Your task to perform on an android device: toggle location history Image 0: 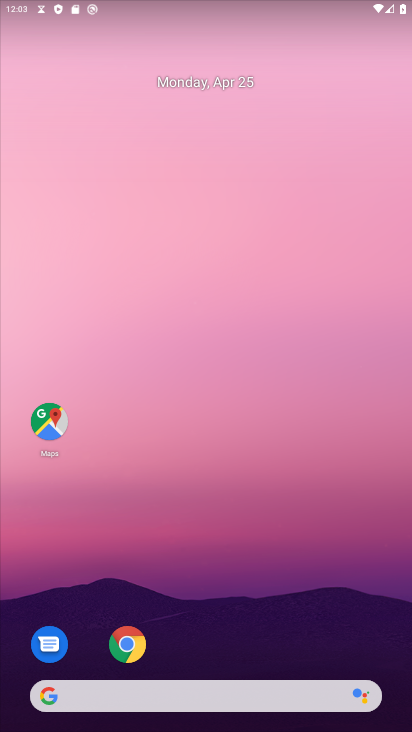
Step 0: click (44, 422)
Your task to perform on an android device: toggle location history Image 1: 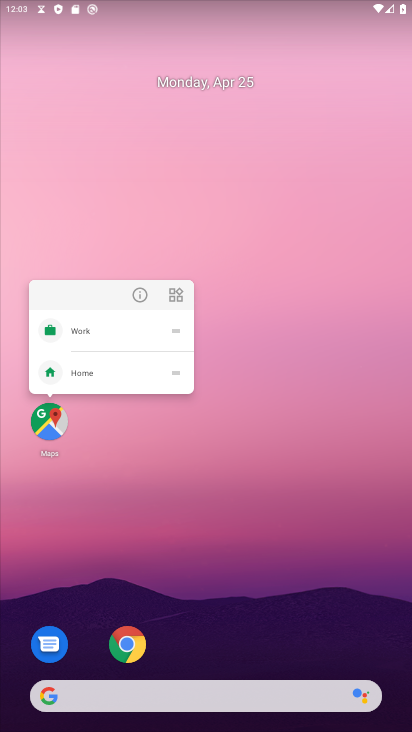
Step 1: click (47, 419)
Your task to perform on an android device: toggle location history Image 2: 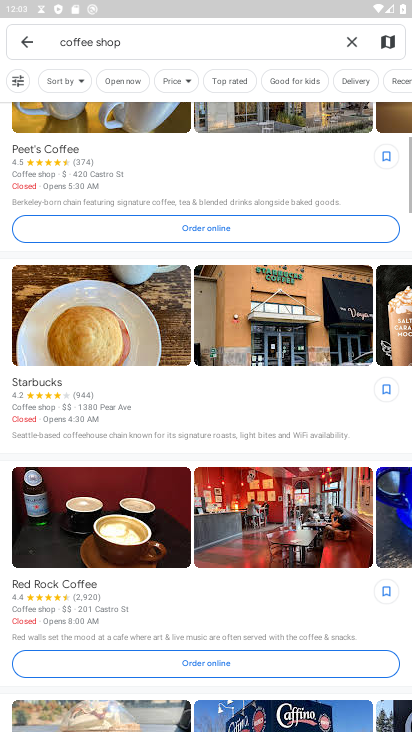
Step 2: click (353, 39)
Your task to perform on an android device: toggle location history Image 3: 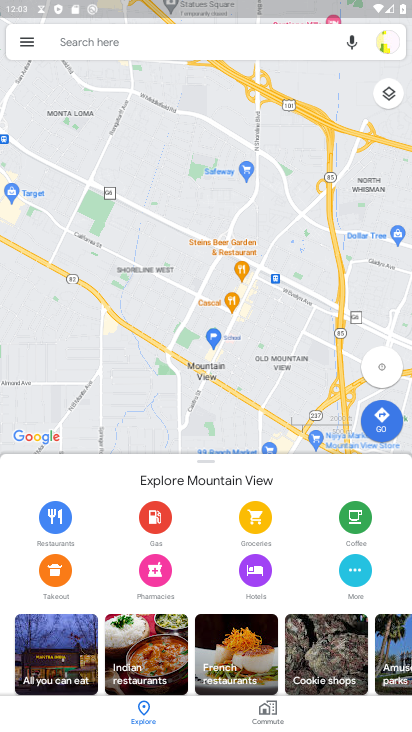
Step 3: click (25, 40)
Your task to perform on an android device: toggle location history Image 4: 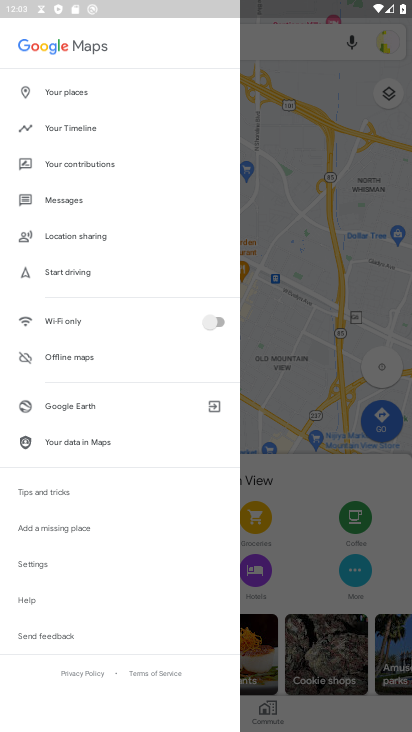
Step 4: click (80, 131)
Your task to perform on an android device: toggle location history Image 5: 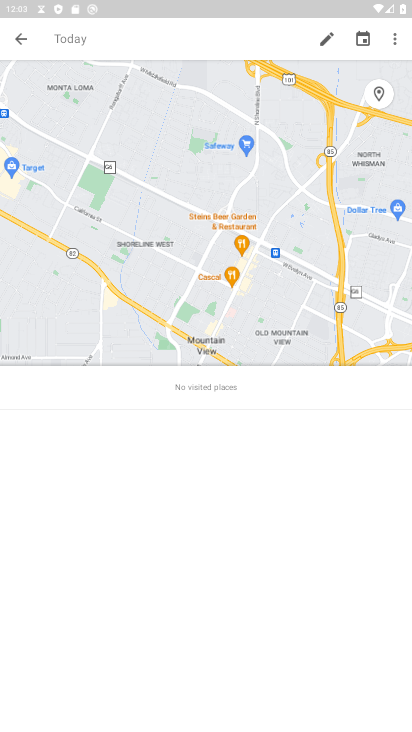
Step 5: click (397, 43)
Your task to perform on an android device: toggle location history Image 6: 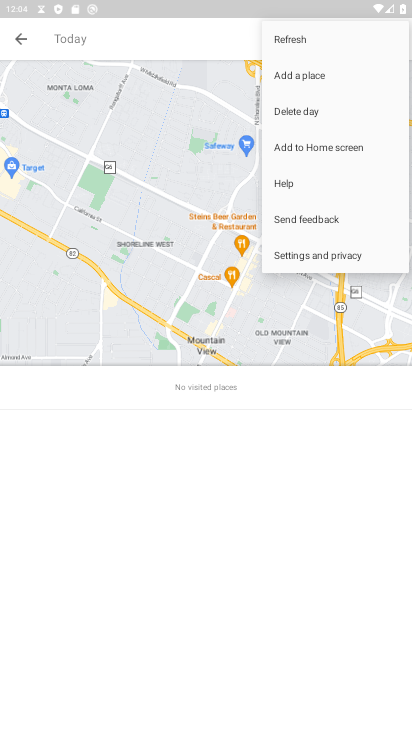
Step 6: click (290, 262)
Your task to perform on an android device: toggle location history Image 7: 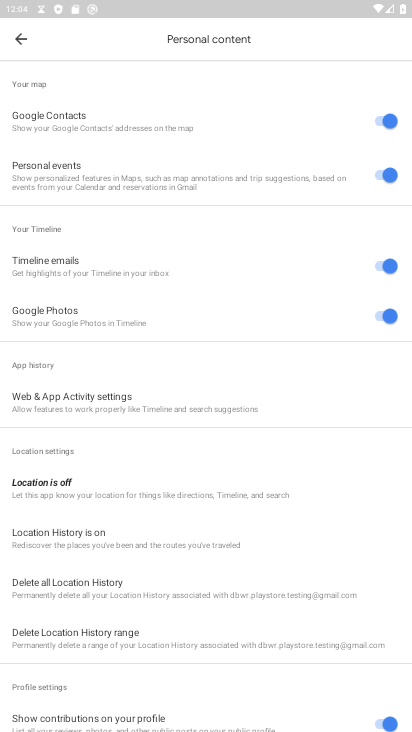
Step 7: click (66, 546)
Your task to perform on an android device: toggle location history Image 8: 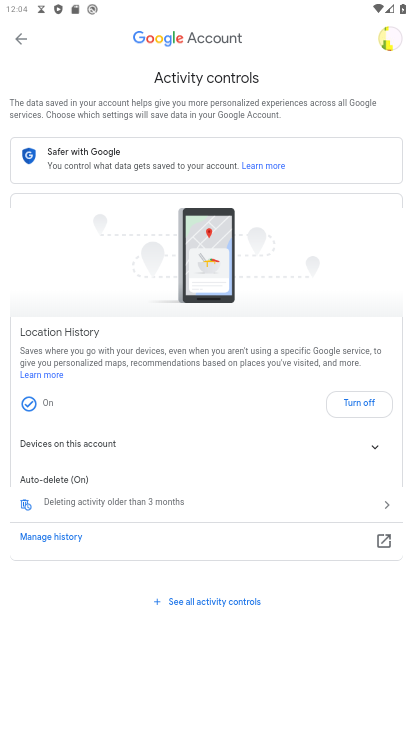
Step 8: click (372, 407)
Your task to perform on an android device: toggle location history Image 9: 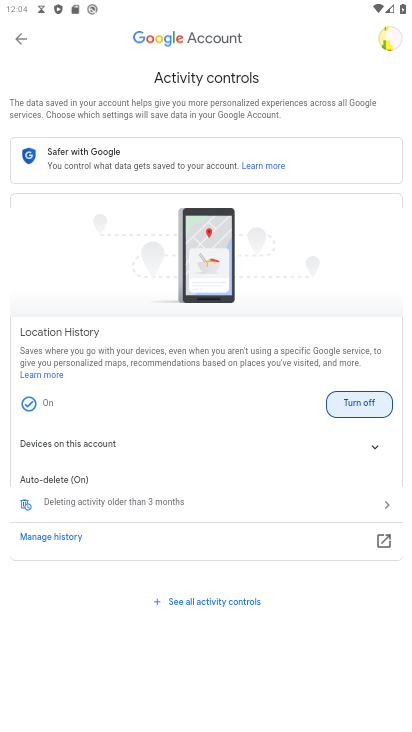
Step 9: click (363, 404)
Your task to perform on an android device: toggle location history Image 10: 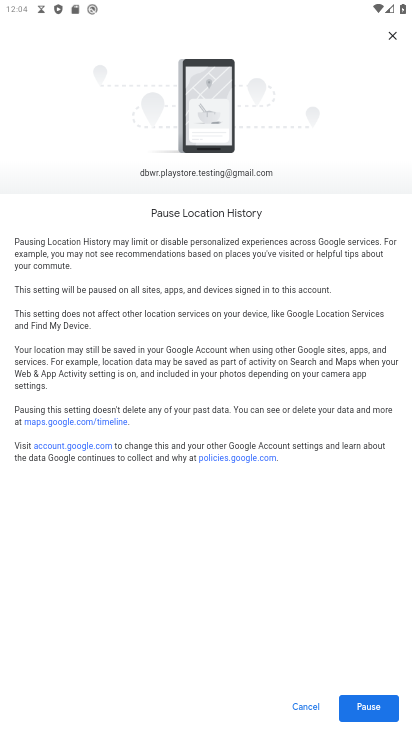
Step 10: click (384, 713)
Your task to perform on an android device: toggle location history Image 11: 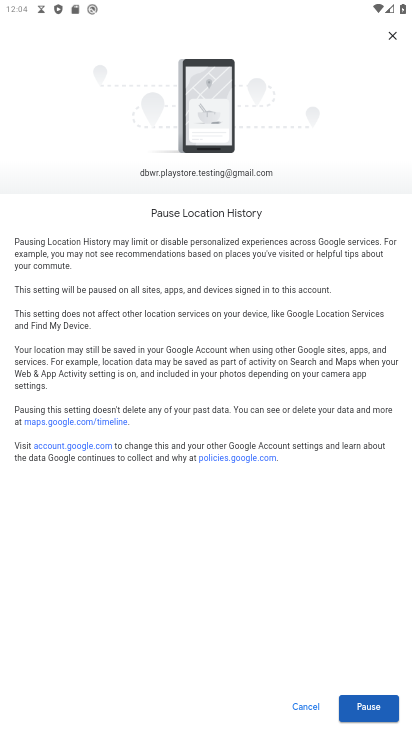
Step 11: click (364, 709)
Your task to perform on an android device: toggle location history Image 12: 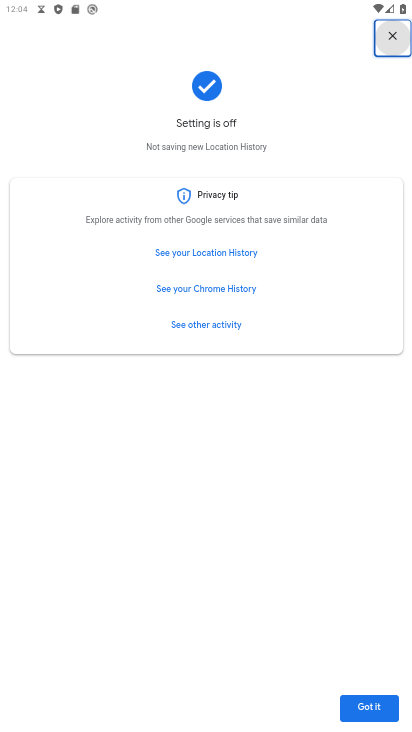
Step 12: click (364, 709)
Your task to perform on an android device: toggle location history Image 13: 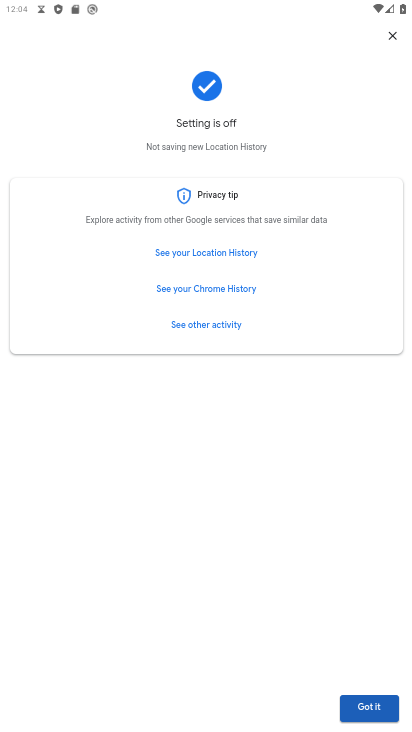
Step 13: click (365, 709)
Your task to perform on an android device: toggle location history Image 14: 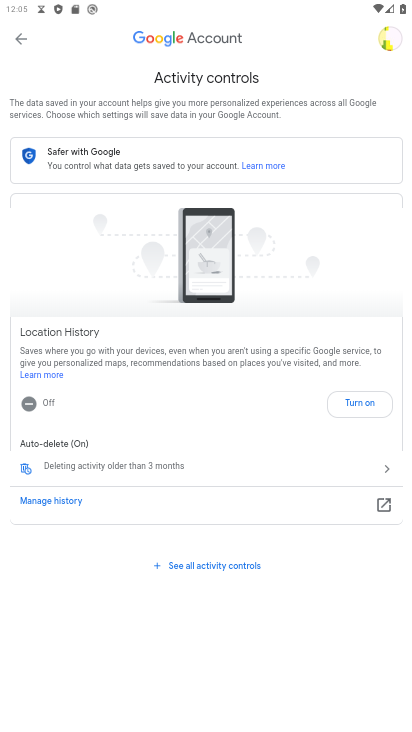
Step 14: task complete